Your task to perform on an android device: see creations saved in the google photos Image 0: 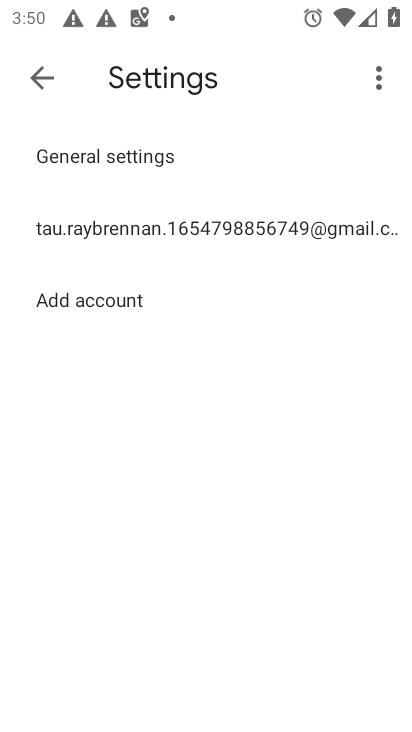
Step 0: press home button
Your task to perform on an android device: see creations saved in the google photos Image 1: 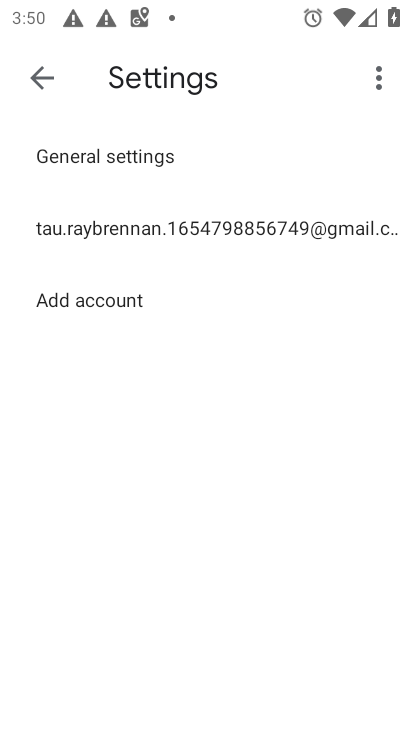
Step 1: press home button
Your task to perform on an android device: see creations saved in the google photos Image 2: 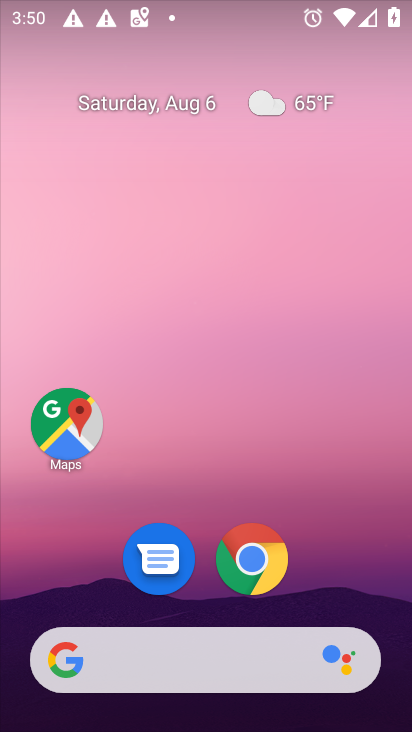
Step 2: drag from (306, 567) to (353, 60)
Your task to perform on an android device: see creations saved in the google photos Image 3: 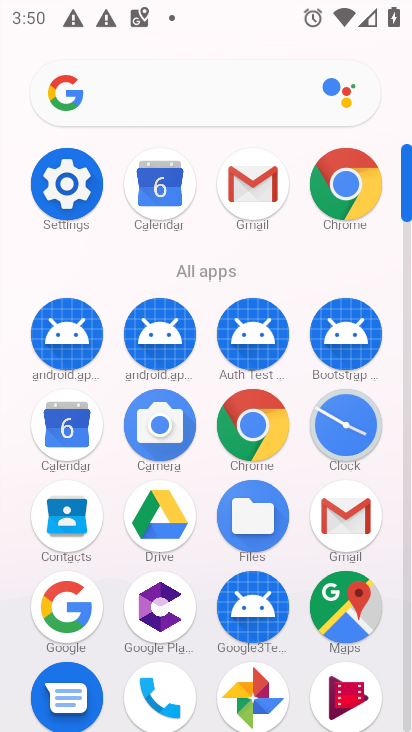
Step 3: click (261, 679)
Your task to perform on an android device: see creations saved in the google photos Image 4: 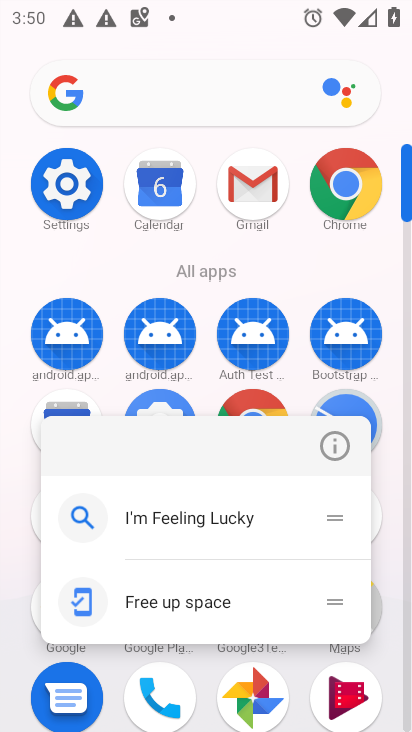
Step 4: click (258, 674)
Your task to perform on an android device: see creations saved in the google photos Image 5: 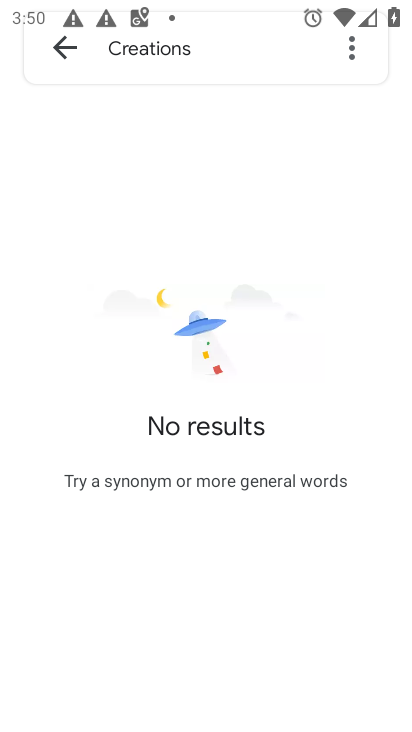
Step 5: task complete